Your task to perform on an android device: Do I have any events tomorrow? Image 0: 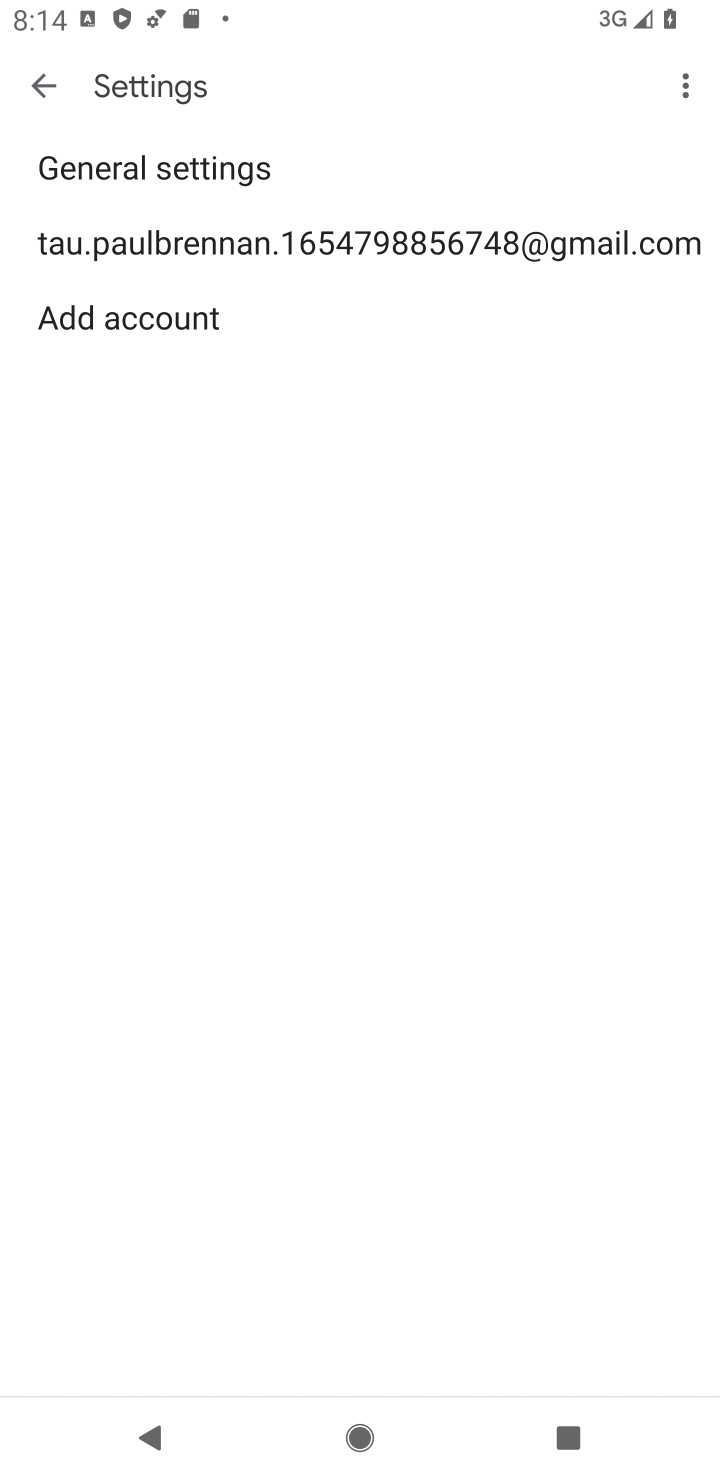
Step 0: press home button
Your task to perform on an android device: Do I have any events tomorrow? Image 1: 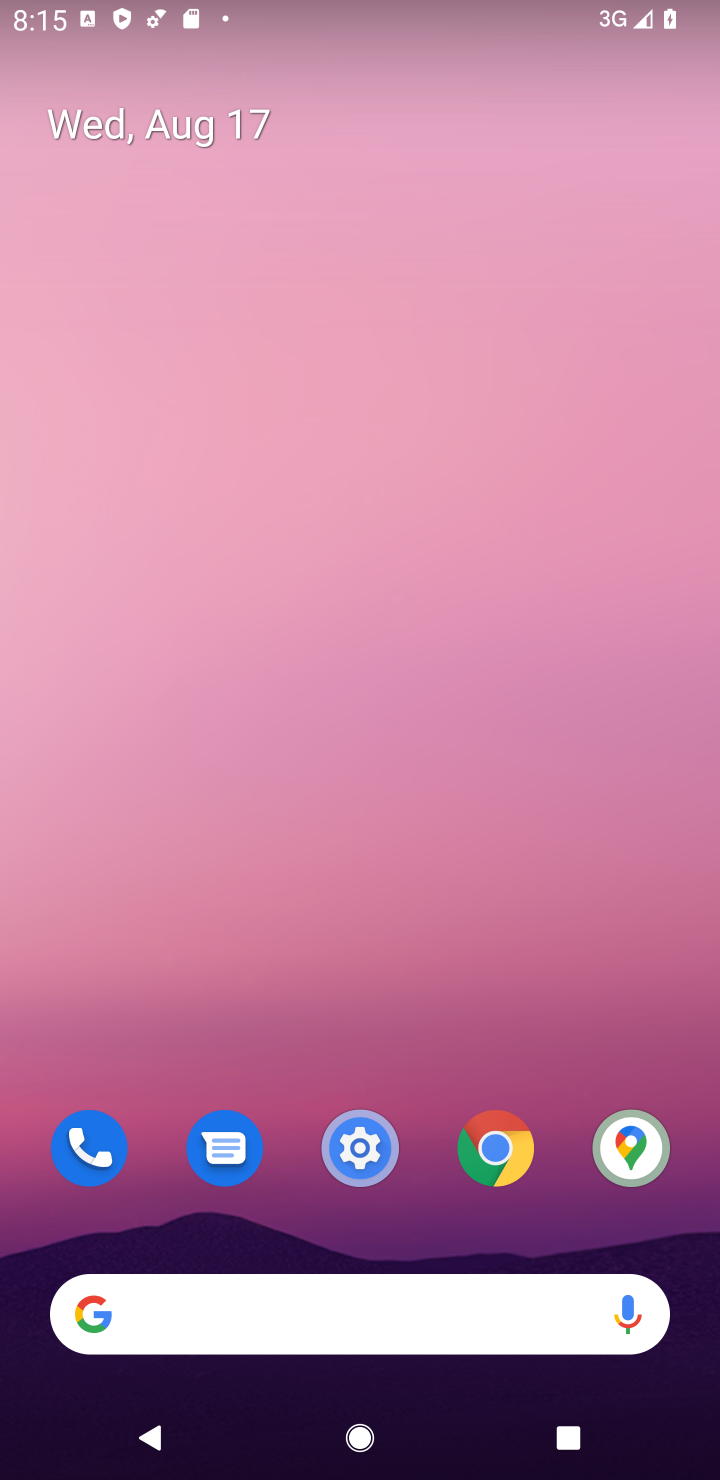
Step 1: drag from (566, 1180) to (505, 95)
Your task to perform on an android device: Do I have any events tomorrow? Image 2: 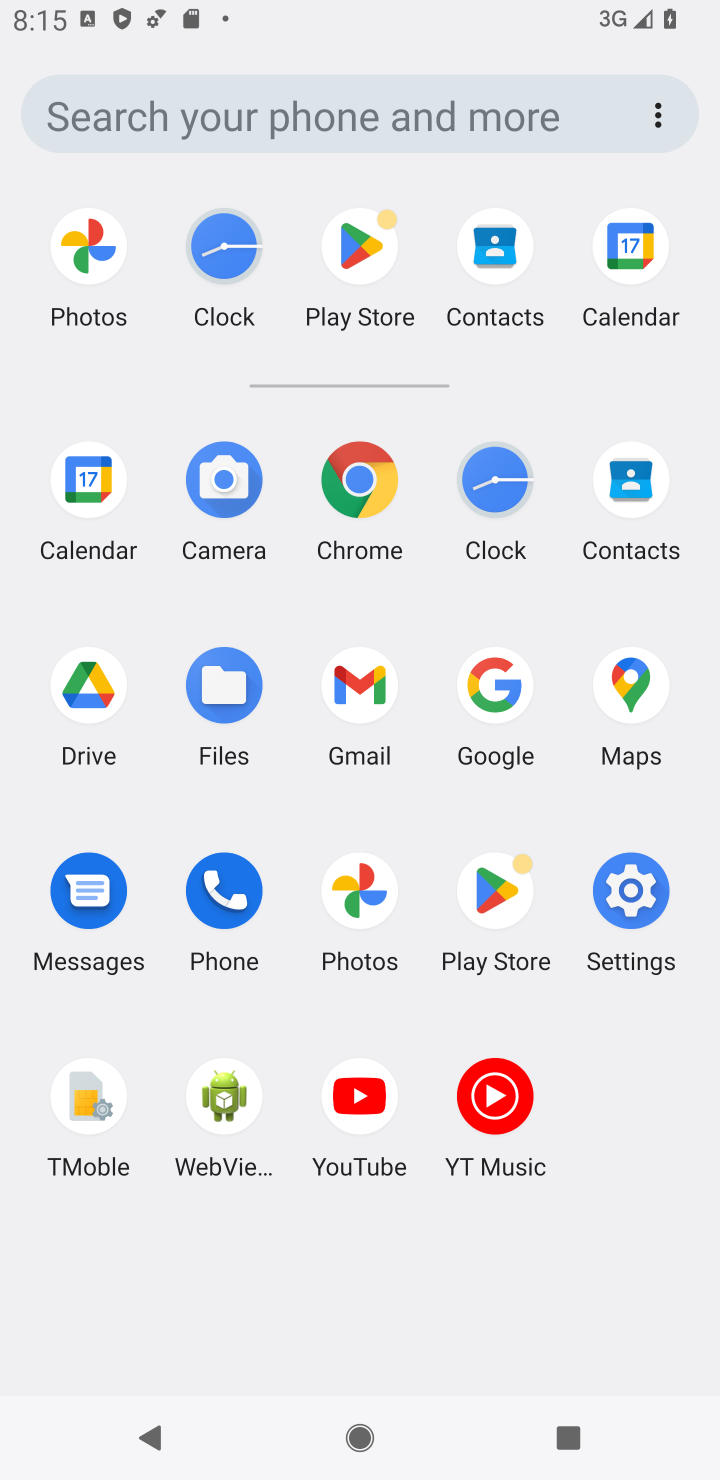
Step 2: click (86, 487)
Your task to perform on an android device: Do I have any events tomorrow? Image 3: 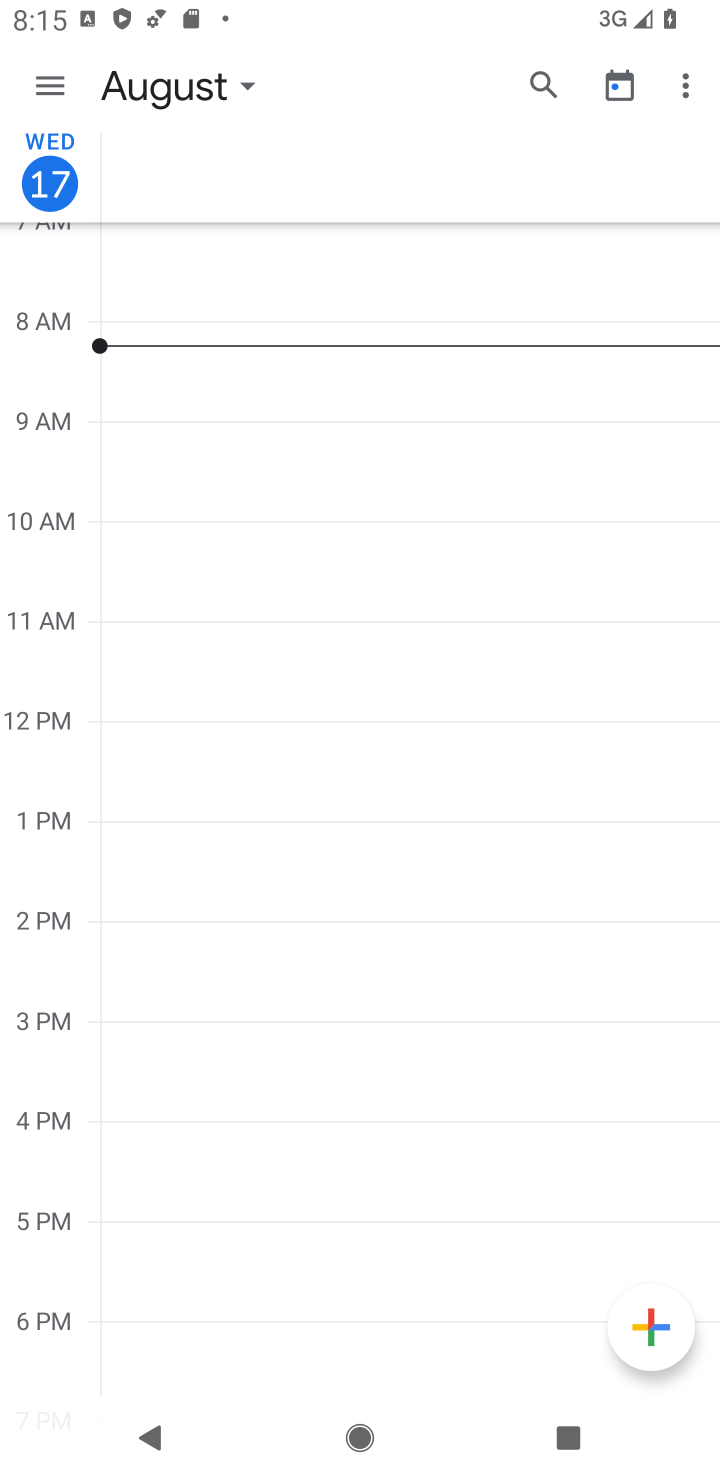
Step 3: click (237, 82)
Your task to perform on an android device: Do I have any events tomorrow? Image 4: 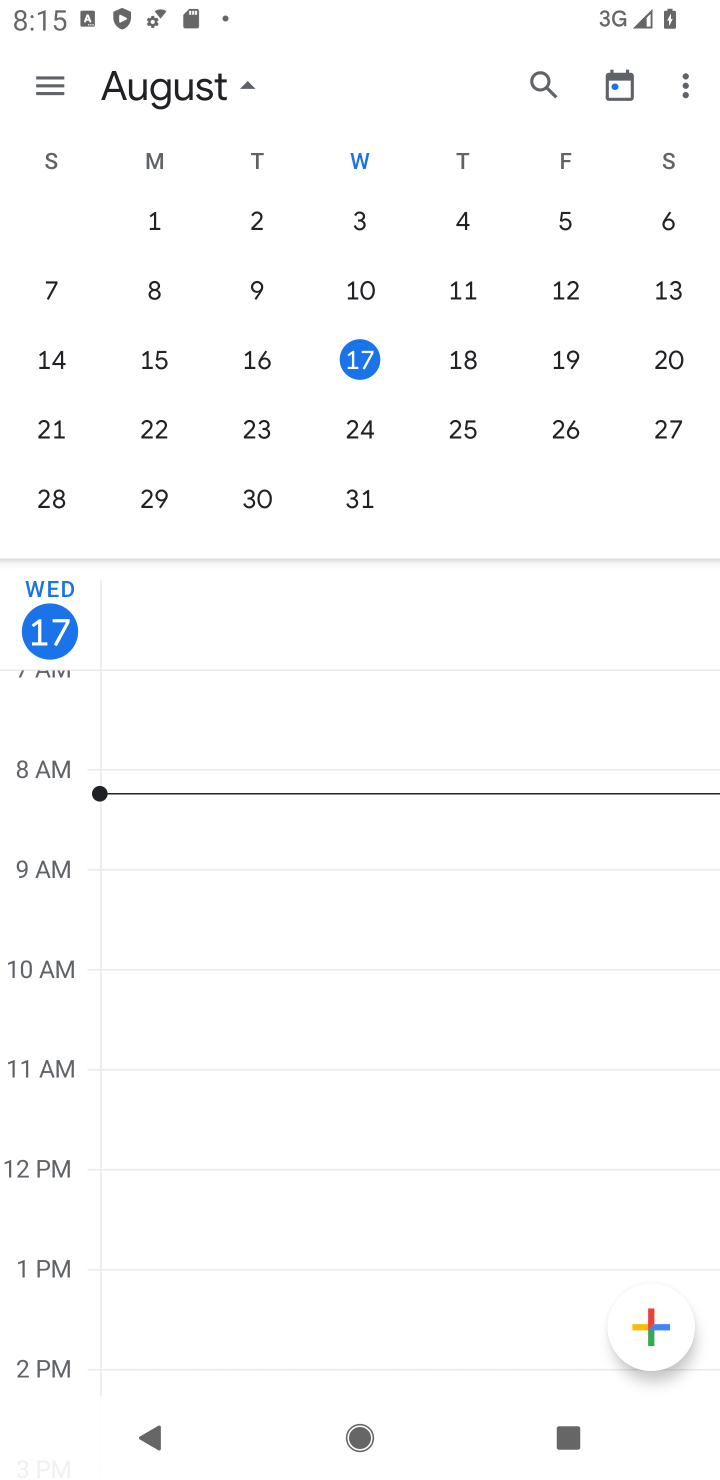
Step 4: click (467, 361)
Your task to perform on an android device: Do I have any events tomorrow? Image 5: 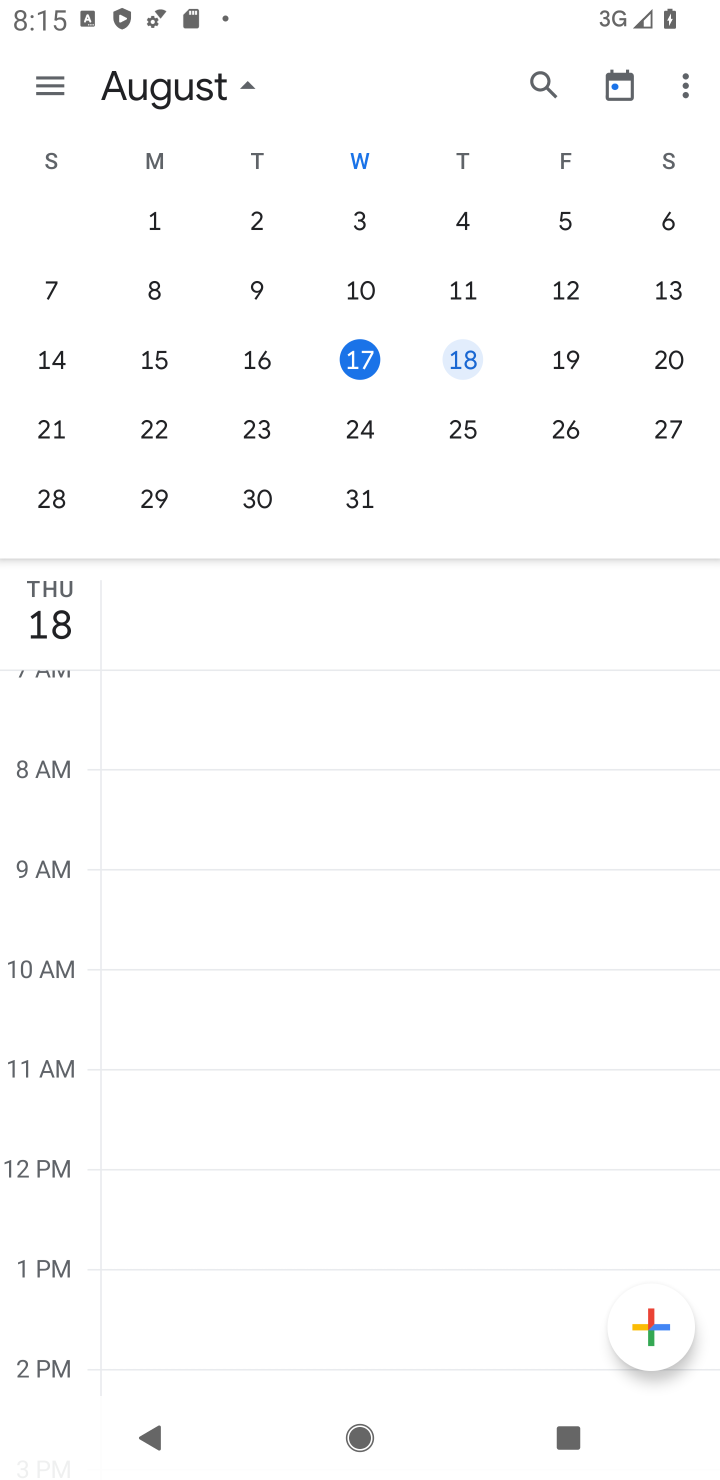
Step 5: task complete